Your task to perform on an android device: turn off sleep mode Image 0: 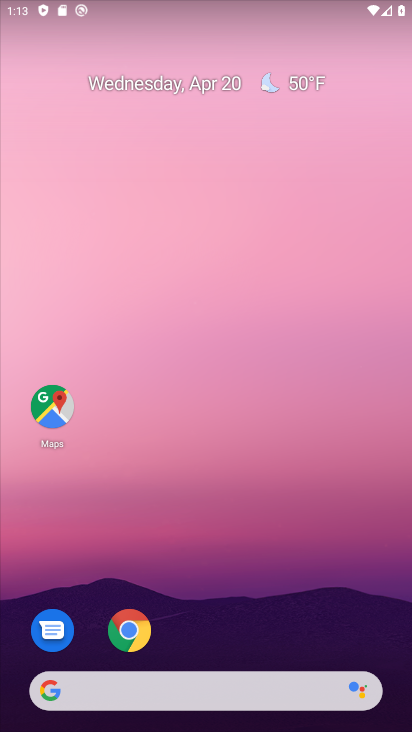
Step 0: drag from (201, 515) to (195, 57)
Your task to perform on an android device: turn off sleep mode Image 1: 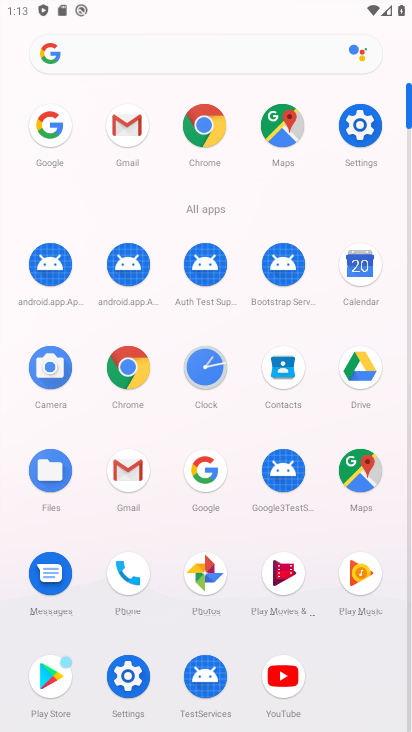
Step 1: click (124, 673)
Your task to perform on an android device: turn off sleep mode Image 2: 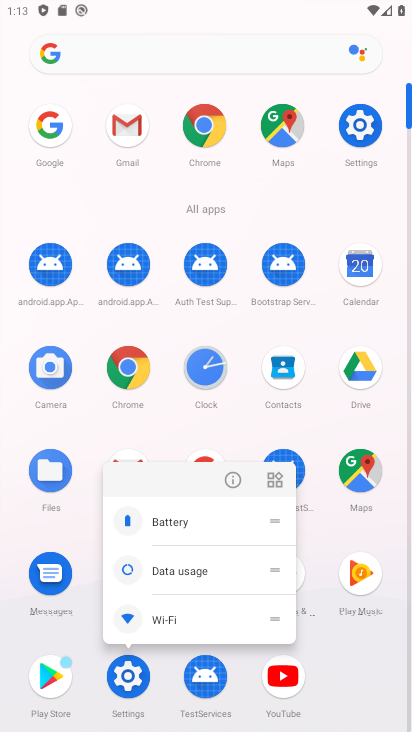
Step 2: click (124, 671)
Your task to perform on an android device: turn off sleep mode Image 3: 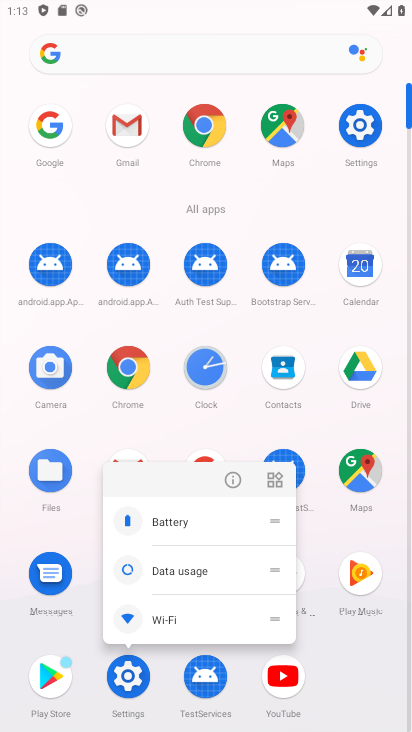
Step 3: click (122, 680)
Your task to perform on an android device: turn off sleep mode Image 4: 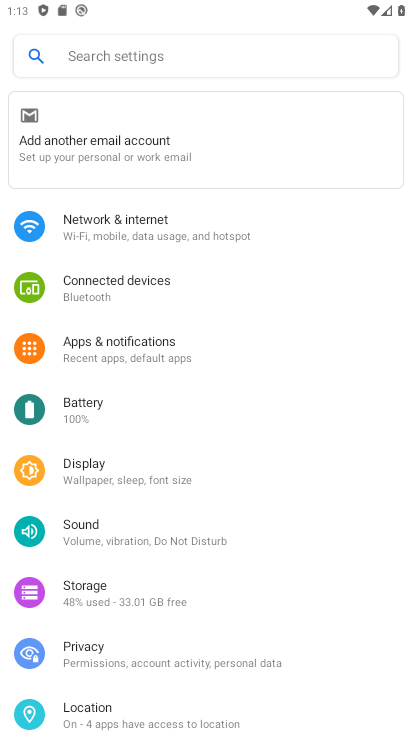
Step 4: click (141, 468)
Your task to perform on an android device: turn off sleep mode Image 5: 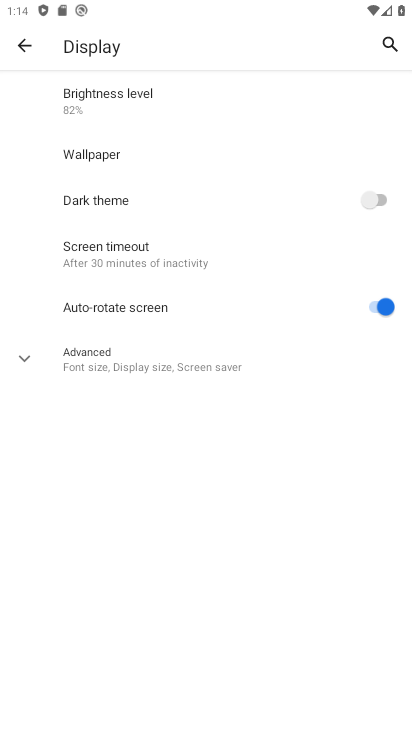
Step 5: click (128, 363)
Your task to perform on an android device: turn off sleep mode Image 6: 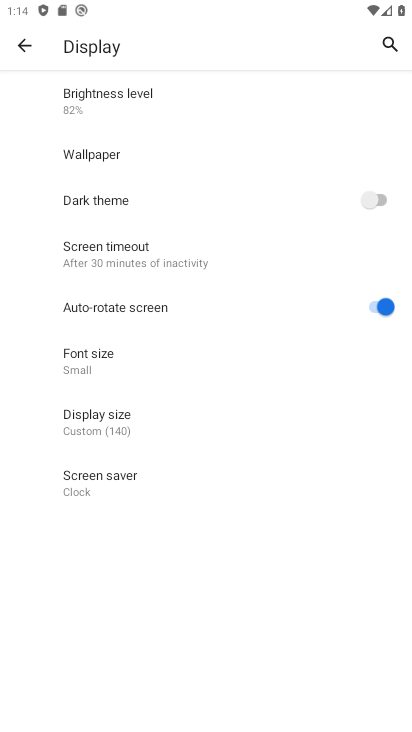
Step 6: click (125, 248)
Your task to perform on an android device: turn off sleep mode Image 7: 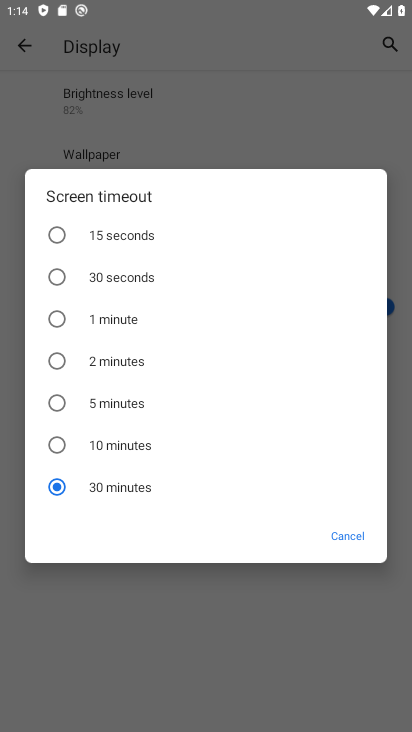
Step 7: task complete